Your task to perform on an android device: turn on the 12-hour format for clock Image 0: 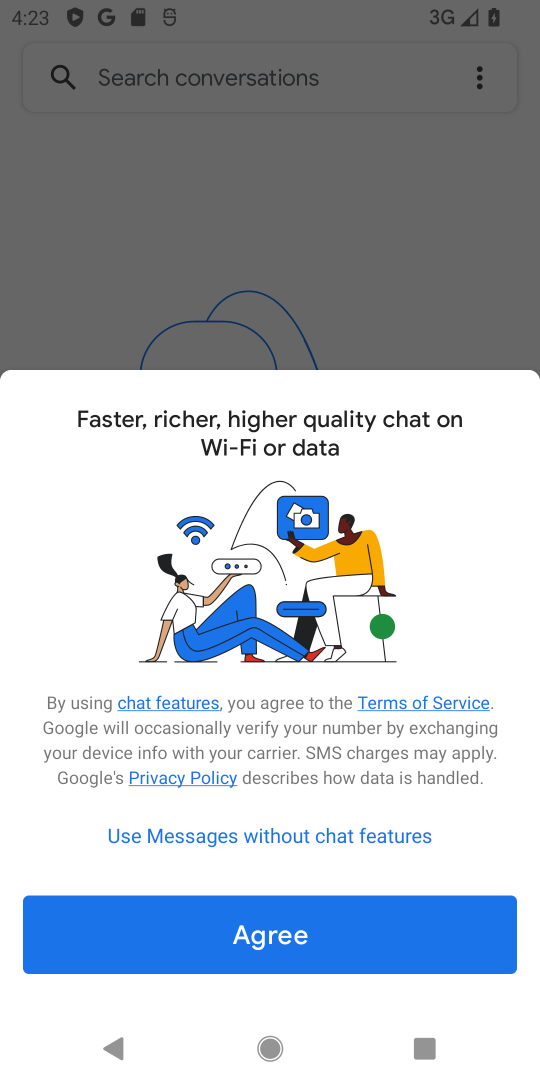
Step 0: press home button
Your task to perform on an android device: turn on the 12-hour format for clock Image 1: 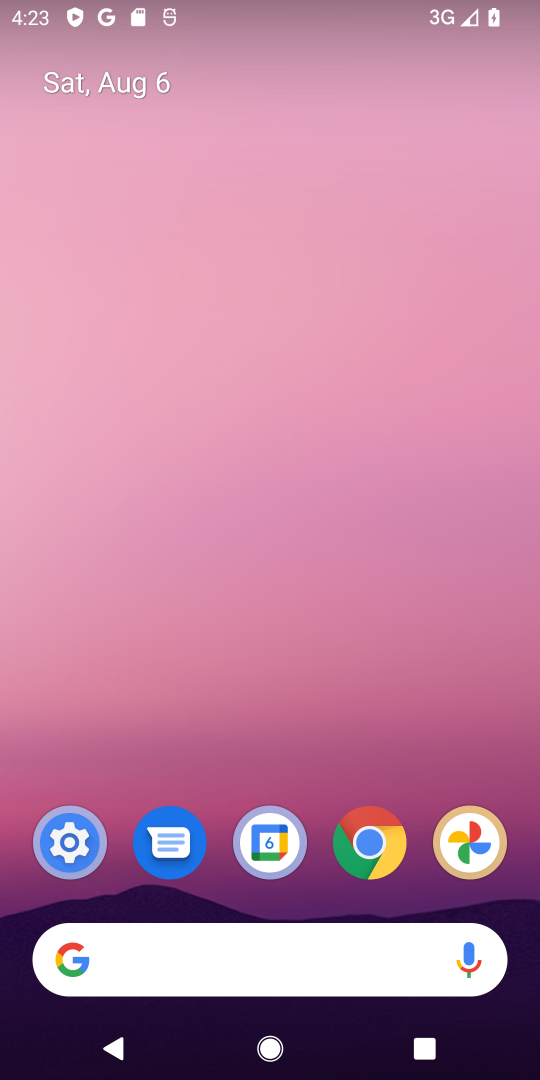
Step 1: drag from (516, 1055) to (369, 100)
Your task to perform on an android device: turn on the 12-hour format for clock Image 2: 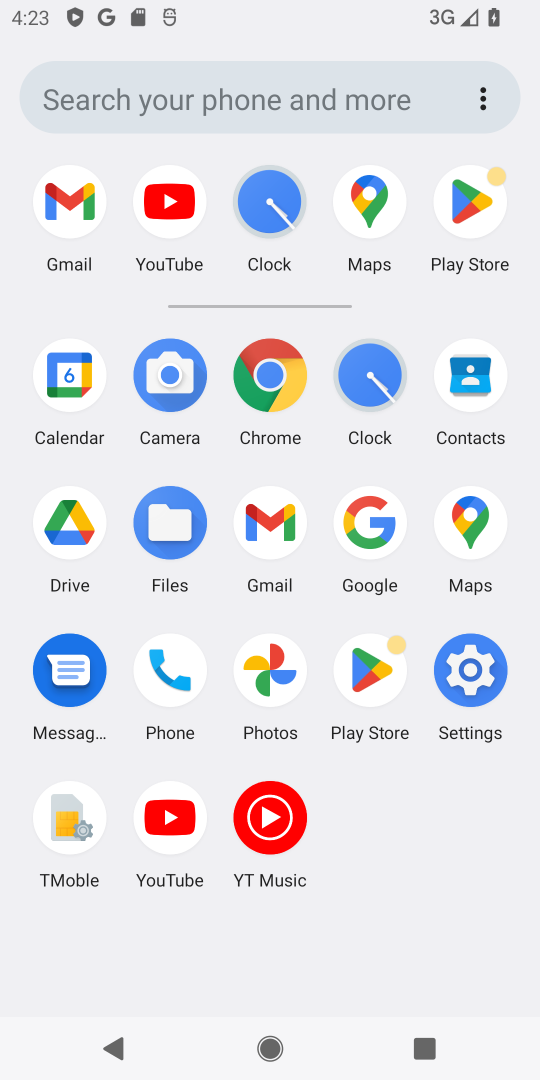
Step 2: click (380, 395)
Your task to perform on an android device: turn on the 12-hour format for clock Image 3: 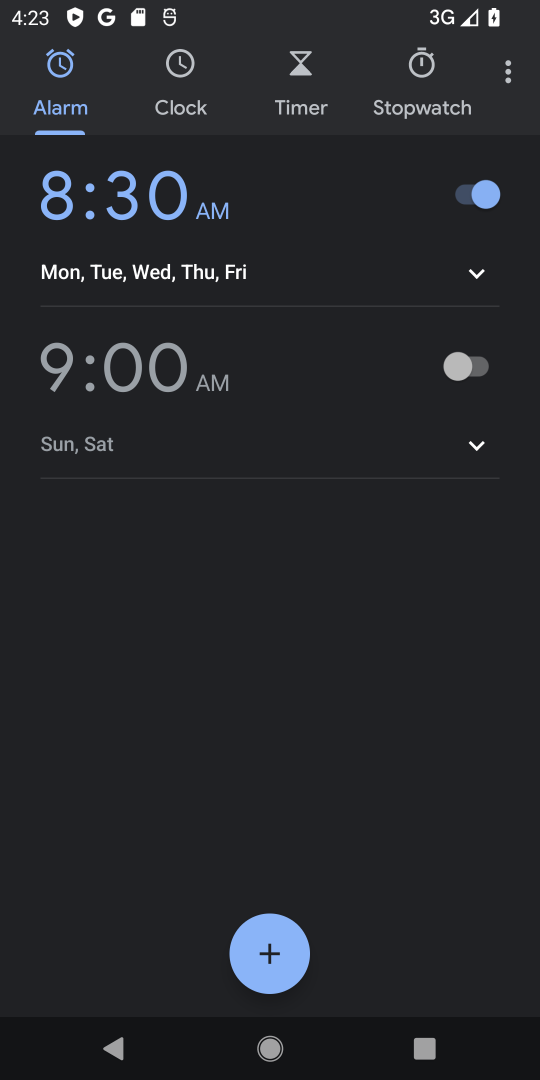
Step 3: click (508, 70)
Your task to perform on an android device: turn on the 12-hour format for clock Image 4: 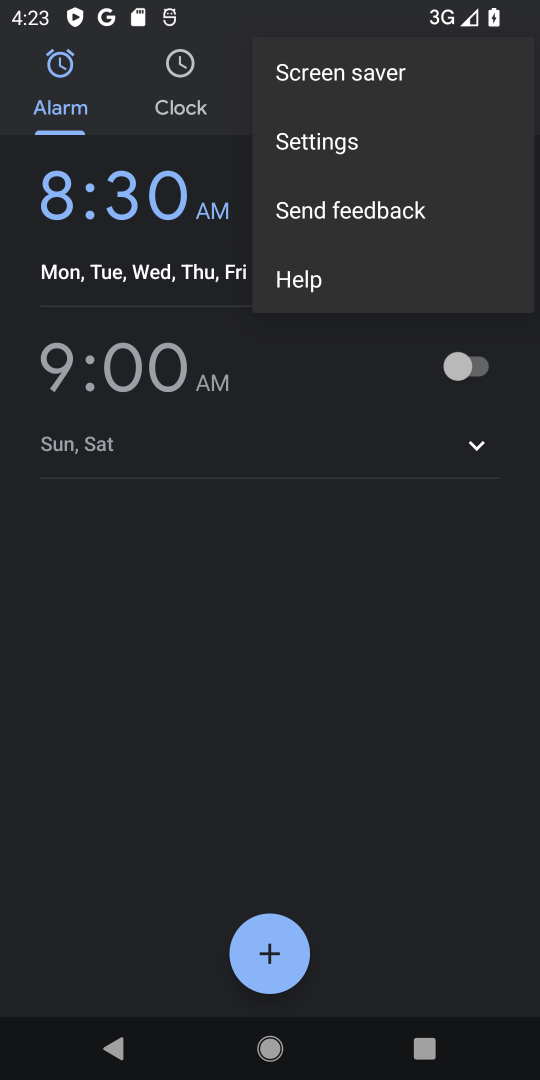
Step 4: click (320, 134)
Your task to perform on an android device: turn on the 12-hour format for clock Image 5: 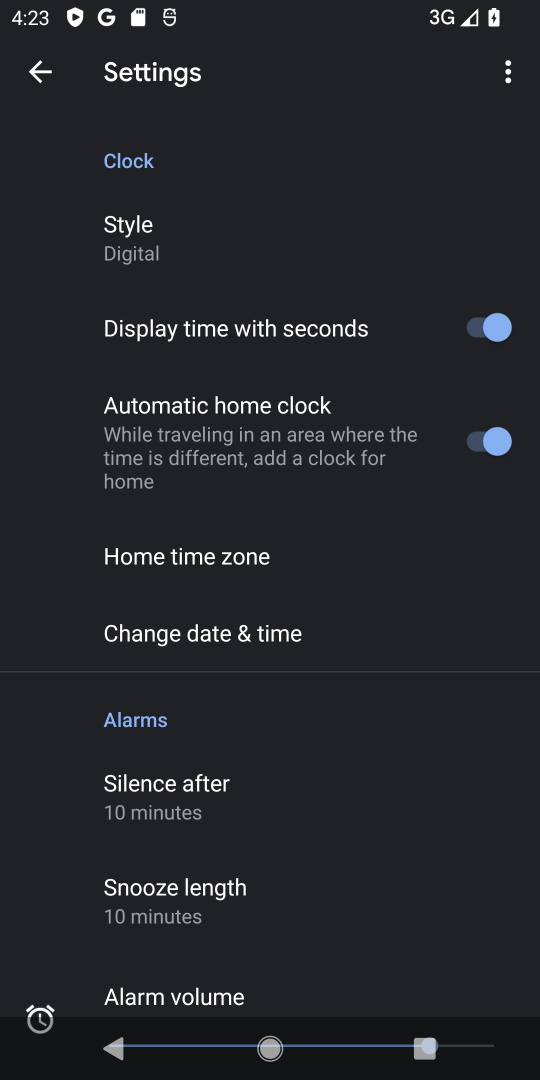
Step 5: click (191, 623)
Your task to perform on an android device: turn on the 12-hour format for clock Image 6: 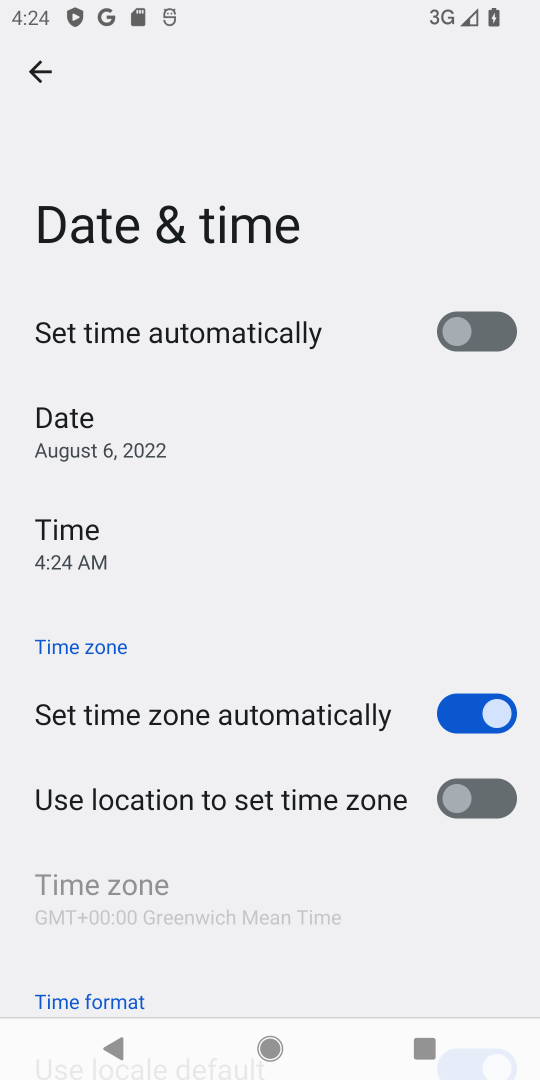
Step 6: task complete